Your task to perform on an android device: change the clock display to digital Image 0: 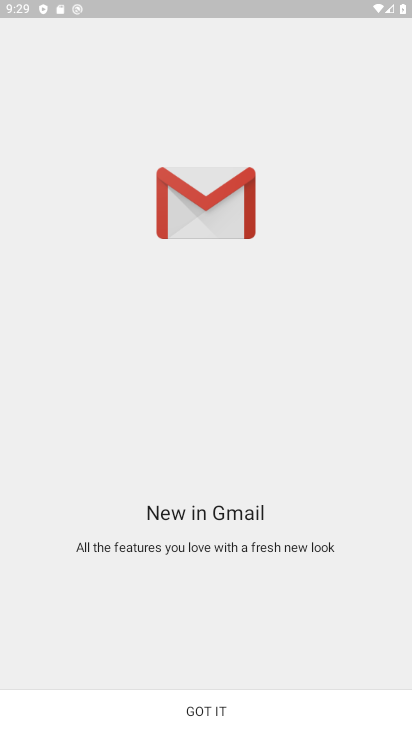
Step 0: click (263, 698)
Your task to perform on an android device: change the clock display to digital Image 1: 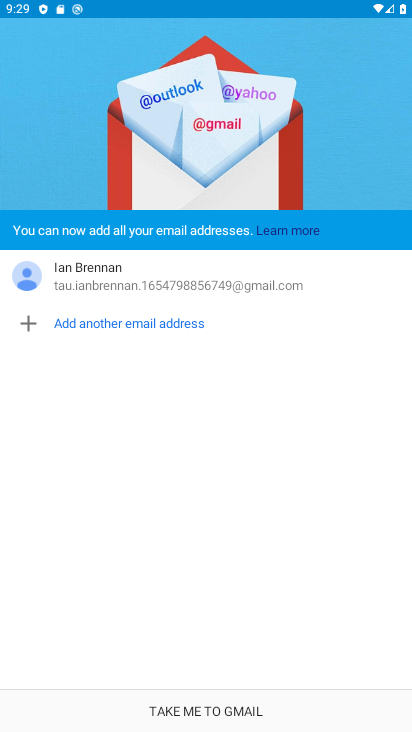
Step 1: click (263, 698)
Your task to perform on an android device: change the clock display to digital Image 2: 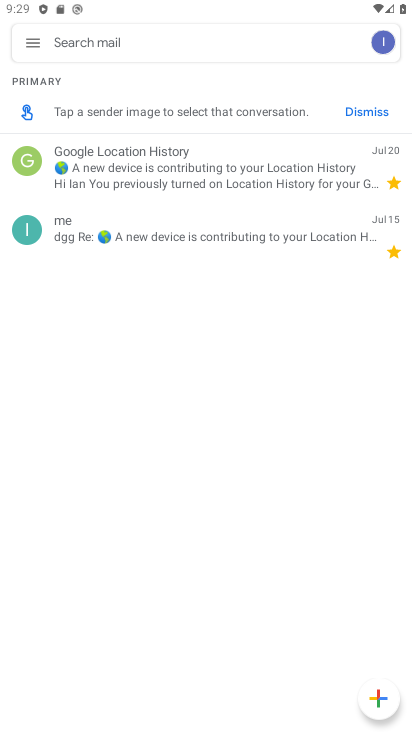
Step 2: task complete